Your task to perform on an android device: open app "ZOOM Cloud Meetings" Image 0: 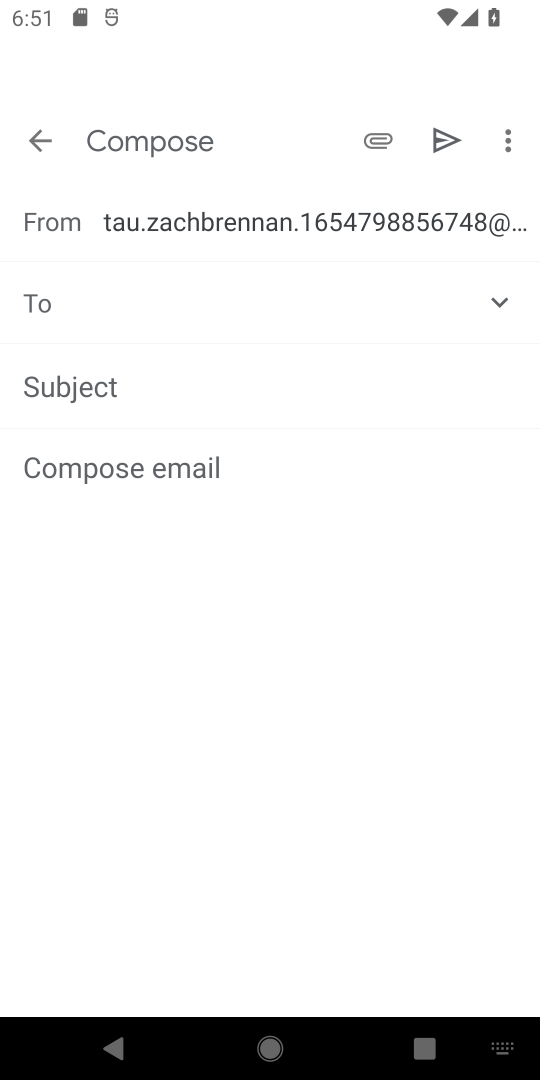
Step 0: click (45, 125)
Your task to perform on an android device: open app "ZOOM Cloud Meetings" Image 1: 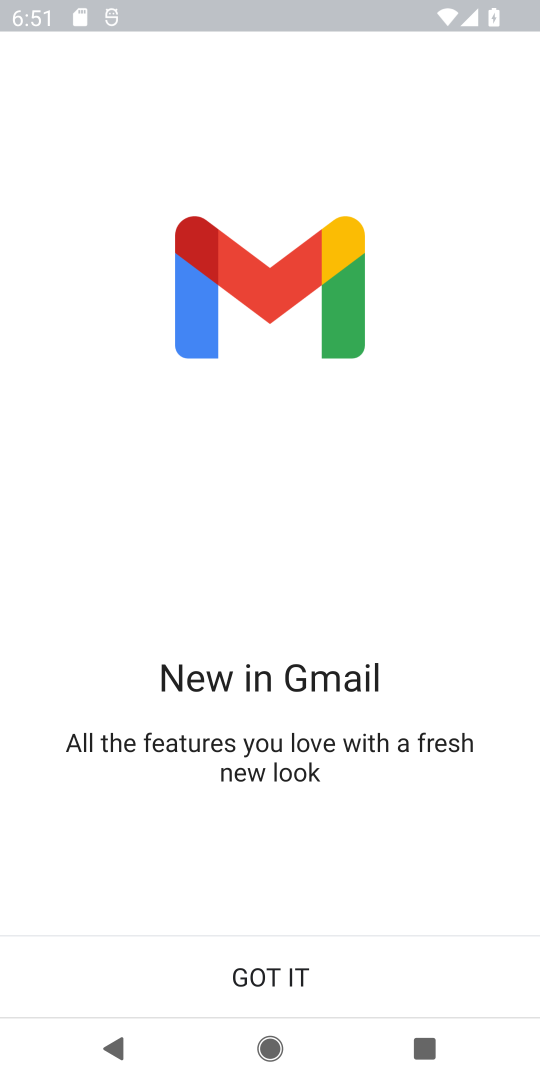
Step 1: press back button
Your task to perform on an android device: open app "ZOOM Cloud Meetings" Image 2: 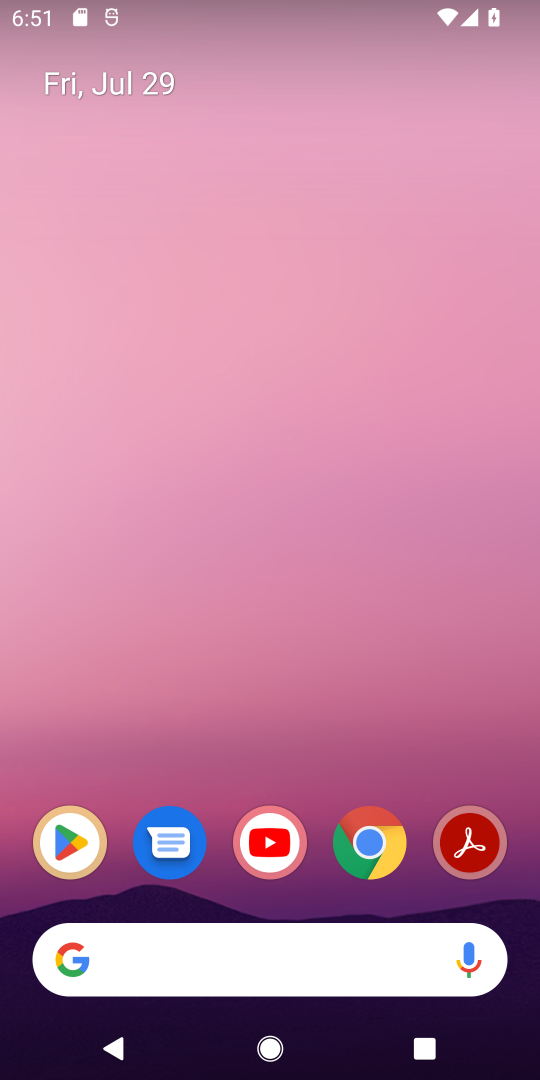
Step 2: drag from (350, 813) to (271, 263)
Your task to perform on an android device: open app "ZOOM Cloud Meetings" Image 3: 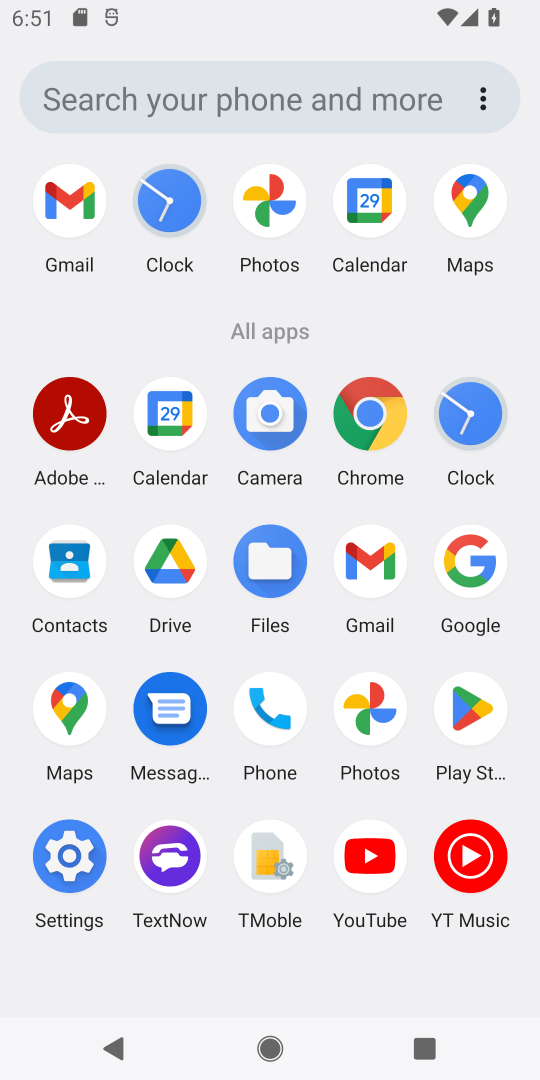
Step 3: drag from (300, 847) to (300, 342)
Your task to perform on an android device: open app "ZOOM Cloud Meetings" Image 4: 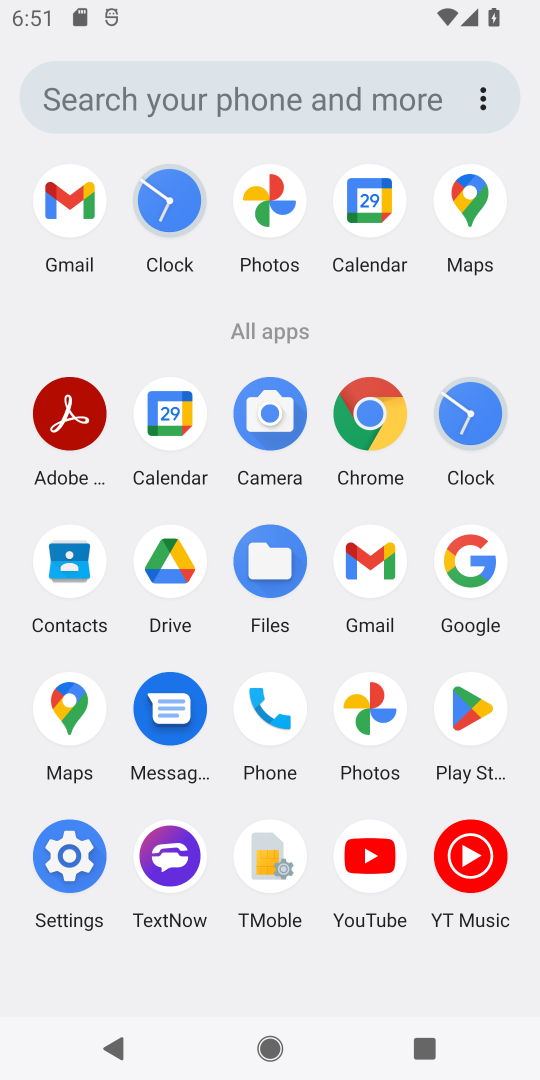
Step 4: click (481, 706)
Your task to perform on an android device: open app "ZOOM Cloud Meetings" Image 5: 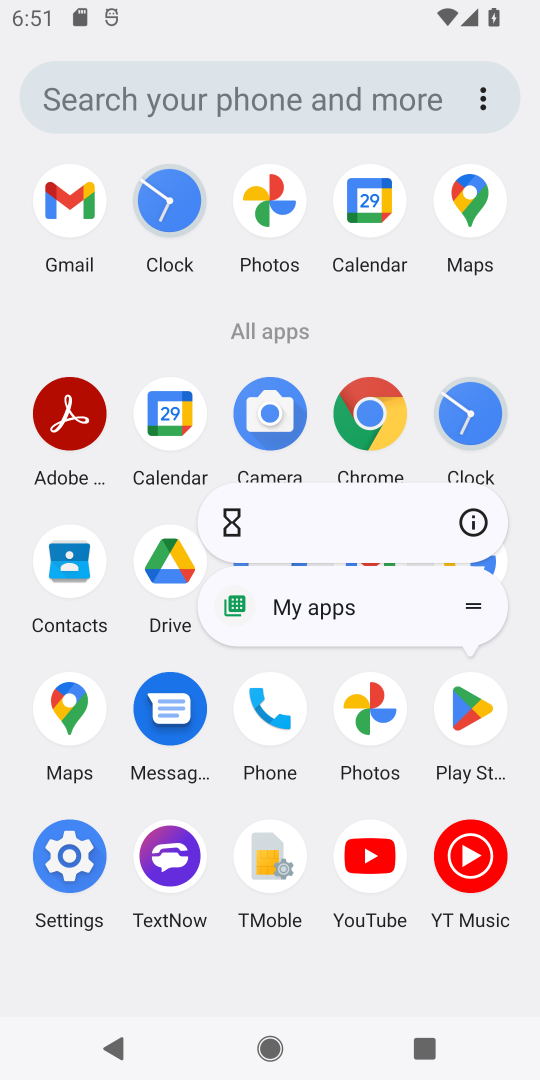
Step 5: click (480, 708)
Your task to perform on an android device: open app "ZOOM Cloud Meetings" Image 6: 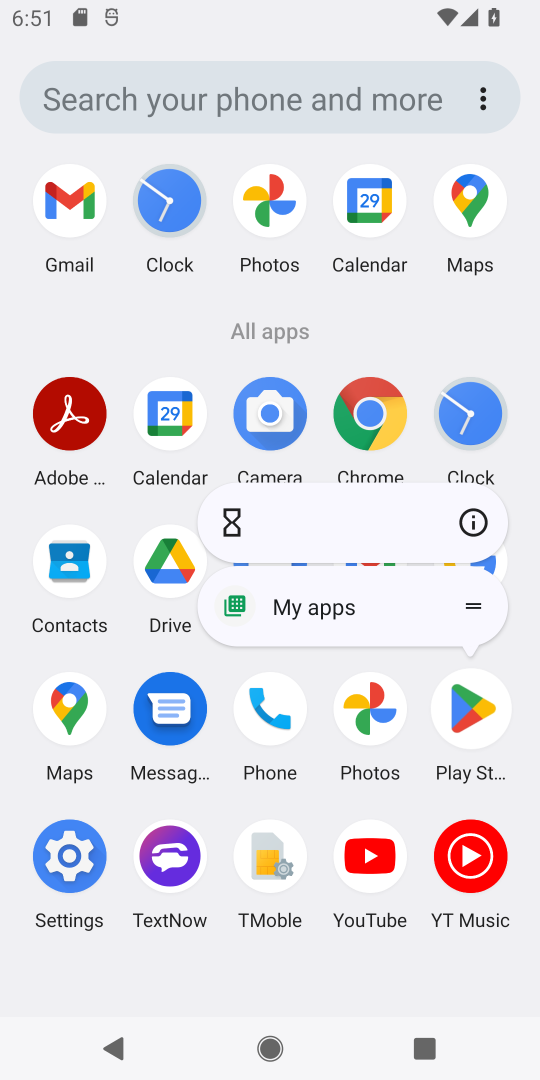
Step 6: click (481, 706)
Your task to perform on an android device: open app "ZOOM Cloud Meetings" Image 7: 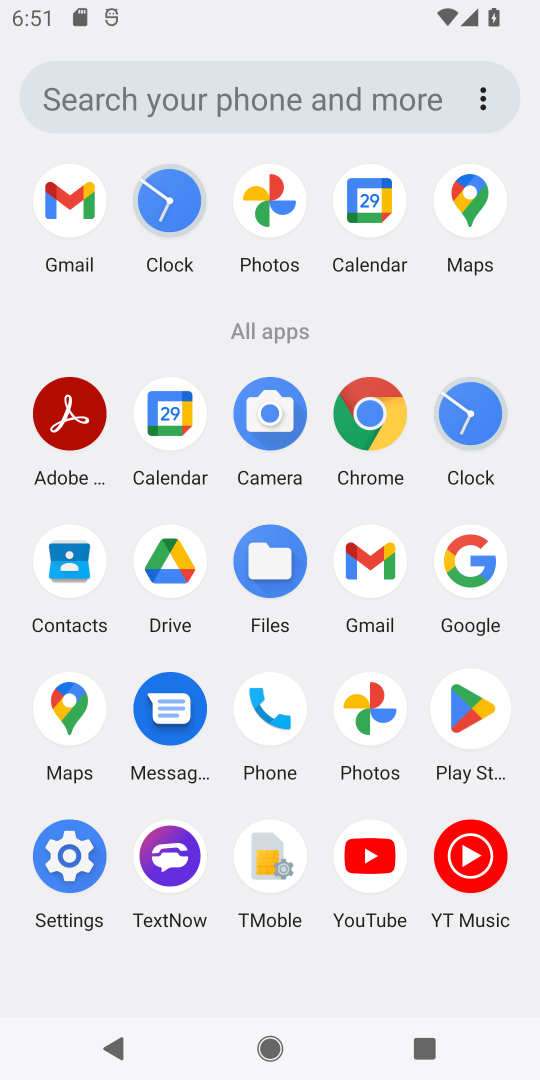
Step 7: click (485, 696)
Your task to perform on an android device: open app "ZOOM Cloud Meetings" Image 8: 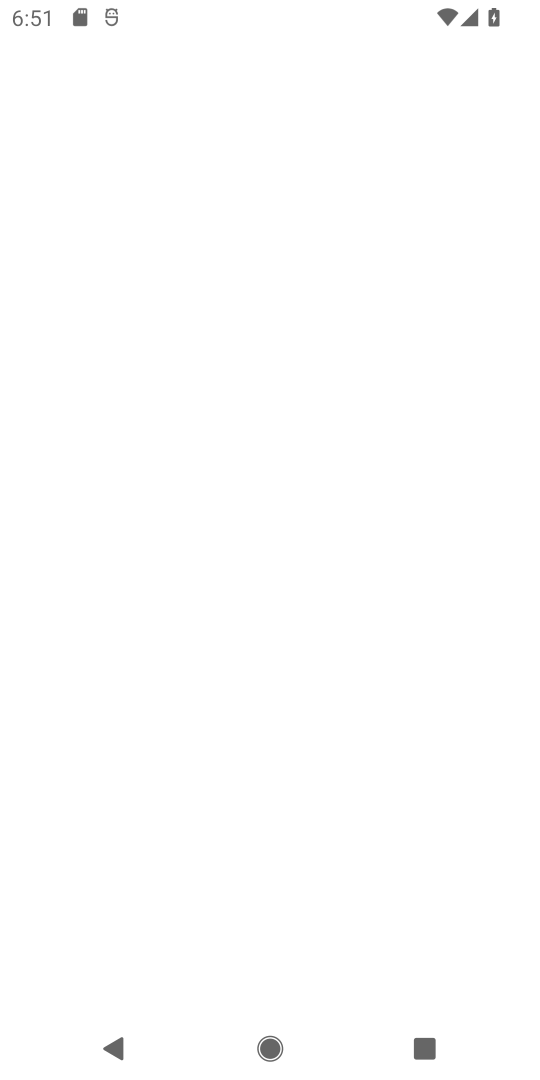
Step 8: click (486, 696)
Your task to perform on an android device: open app "ZOOM Cloud Meetings" Image 9: 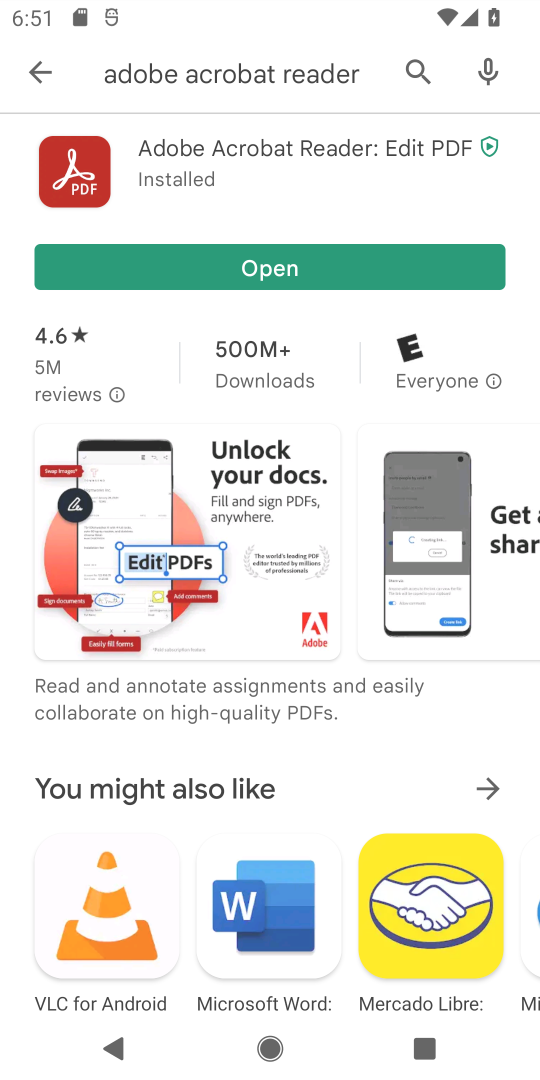
Step 9: click (487, 696)
Your task to perform on an android device: open app "ZOOM Cloud Meetings" Image 10: 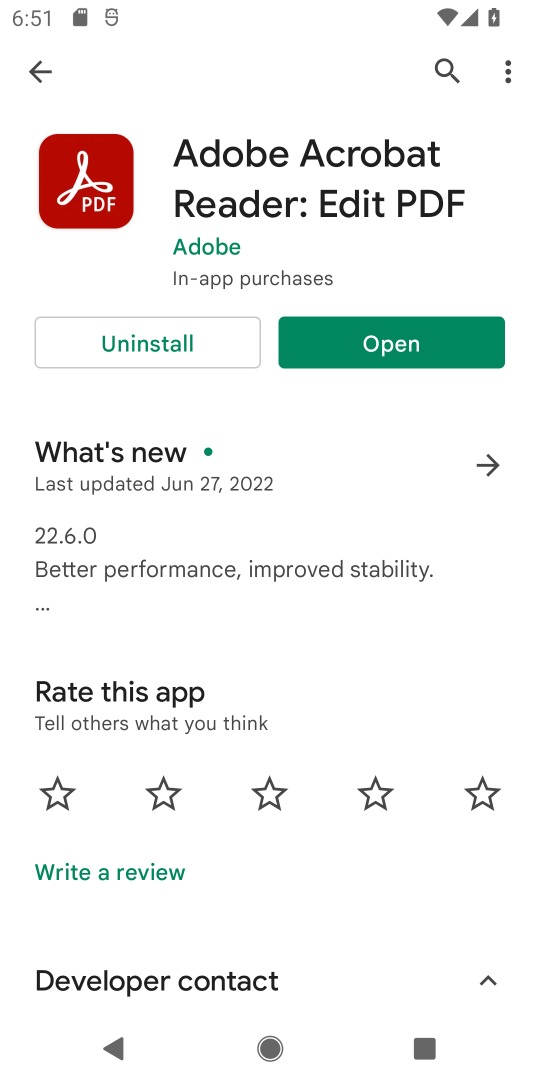
Step 10: click (35, 70)
Your task to perform on an android device: open app "ZOOM Cloud Meetings" Image 11: 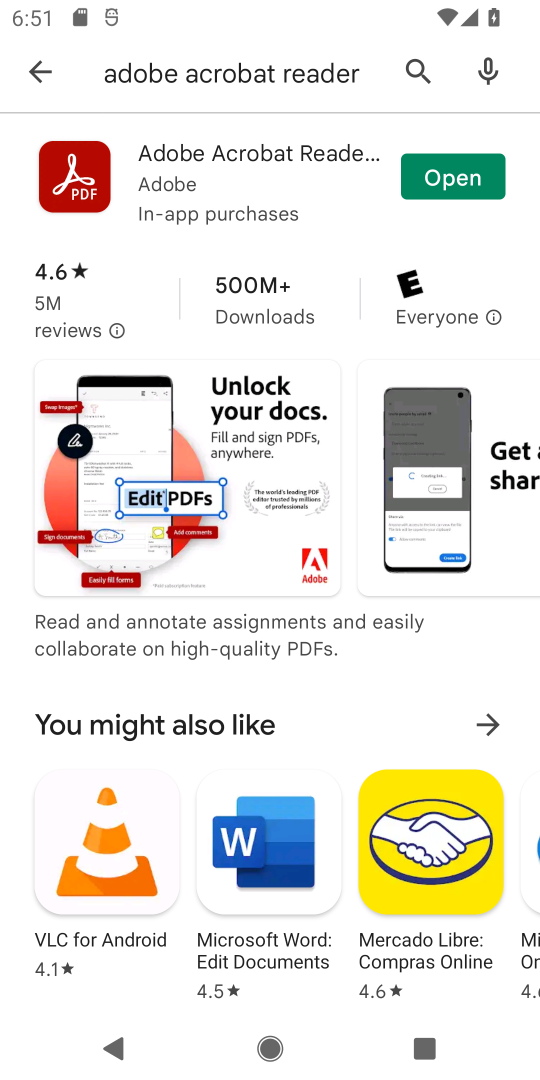
Step 11: click (30, 62)
Your task to perform on an android device: open app "ZOOM Cloud Meetings" Image 12: 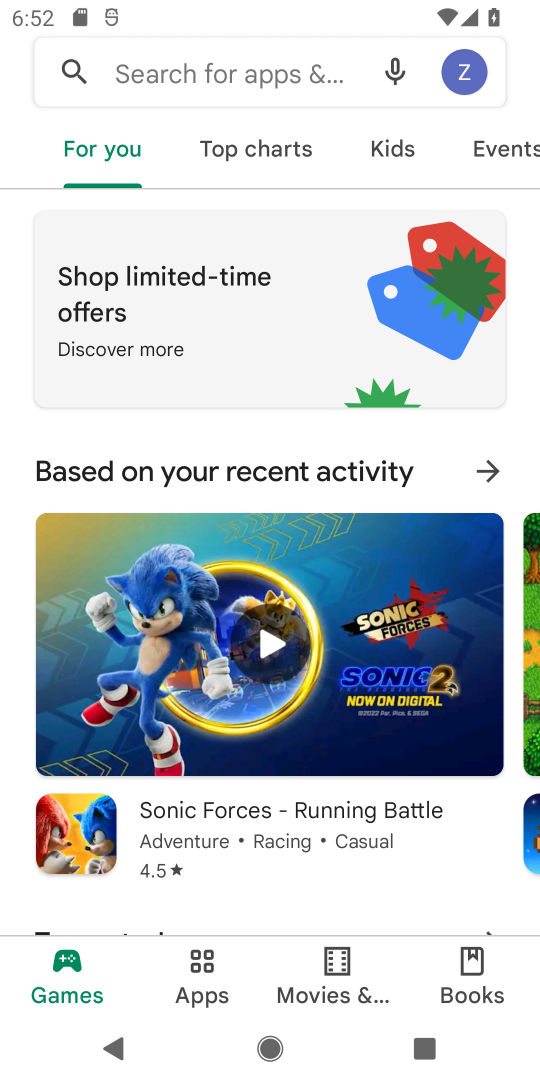
Step 12: click (164, 73)
Your task to perform on an android device: open app "ZOOM Cloud Meetings" Image 13: 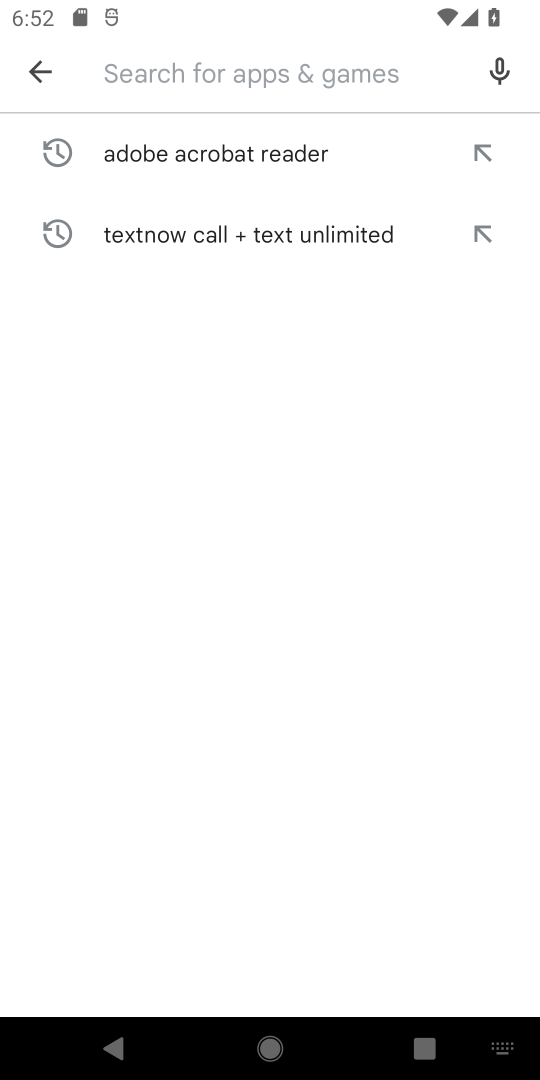
Step 13: click (127, 58)
Your task to perform on an android device: open app "ZOOM Cloud Meetings" Image 14: 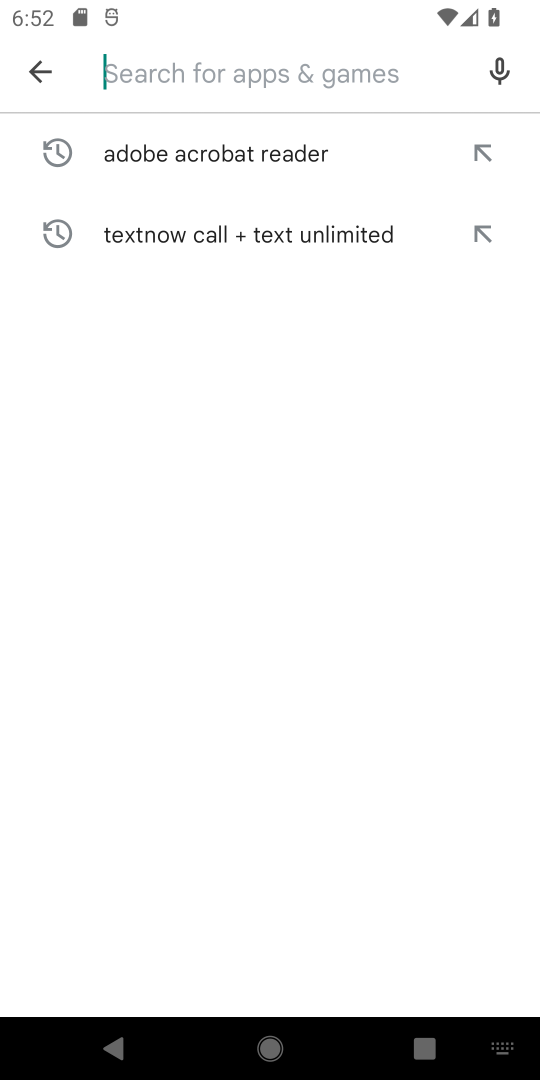
Step 14: type "Zoom cloud Meetings"
Your task to perform on an android device: open app "ZOOM Cloud Meetings" Image 15: 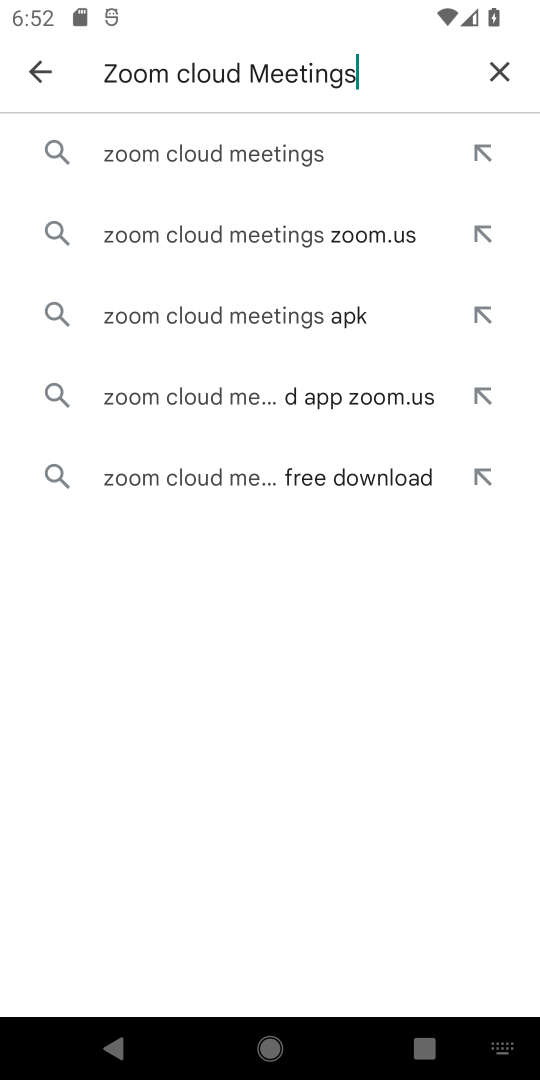
Step 15: click (282, 151)
Your task to perform on an android device: open app "ZOOM Cloud Meetings" Image 16: 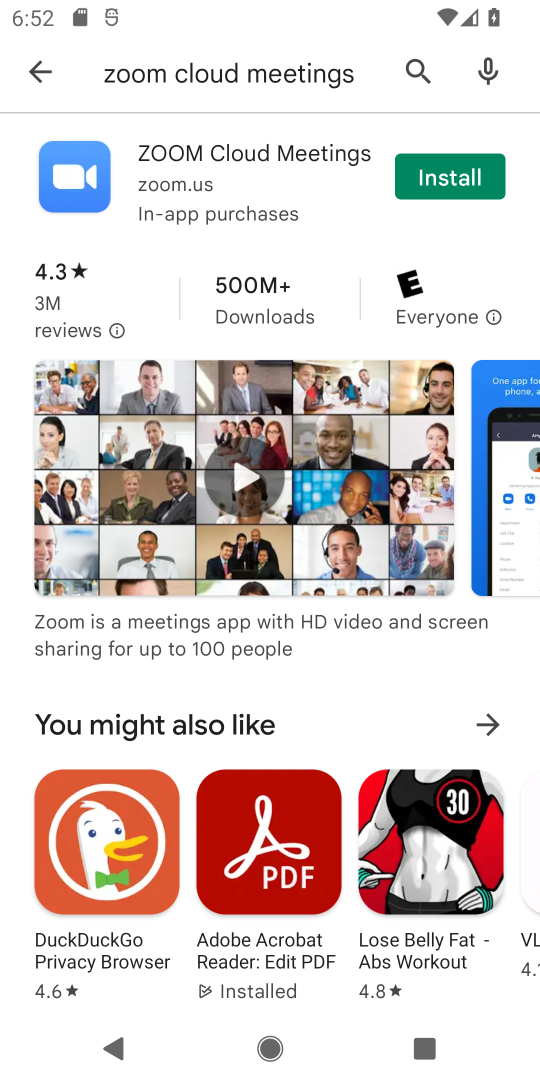
Step 16: click (463, 169)
Your task to perform on an android device: open app "ZOOM Cloud Meetings" Image 17: 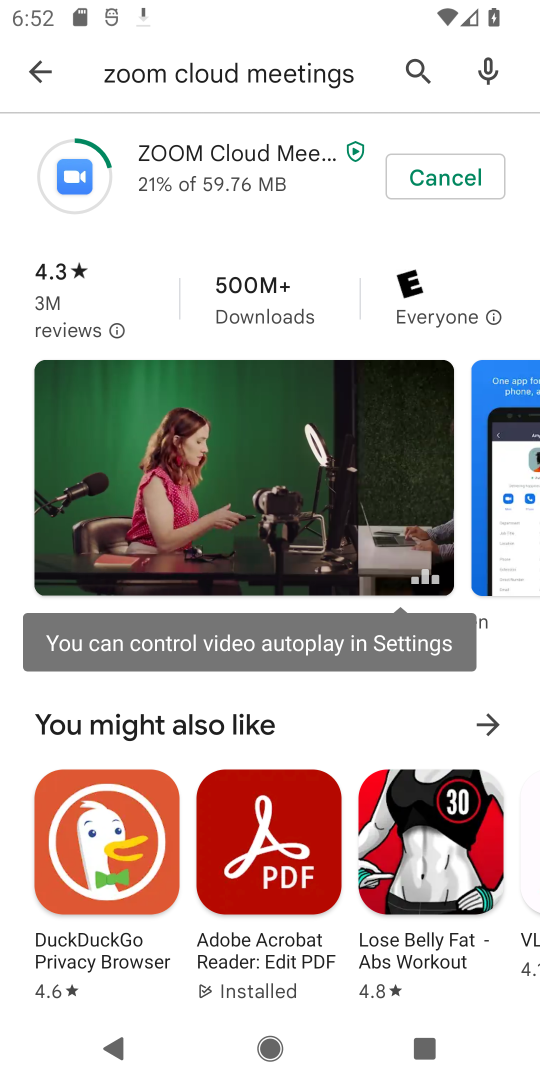
Step 17: click (199, 506)
Your task to perform on an android device: open app "ZOOM Cloud Meetings" Image 18: 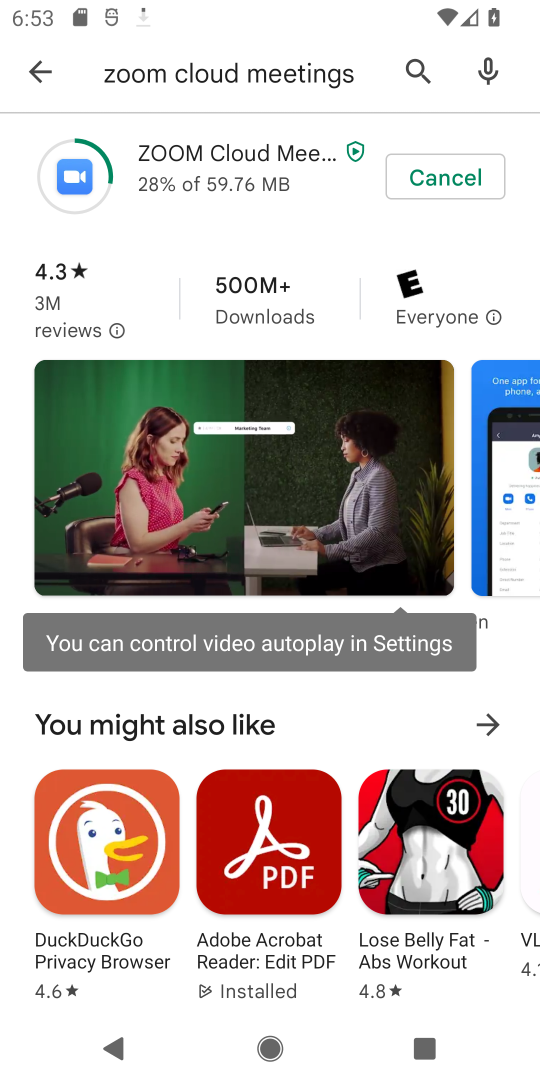
Step 18: click (258, 487)
Your task to perform on an android device: open app "ZOOM Cloud Meetings" Image 19: 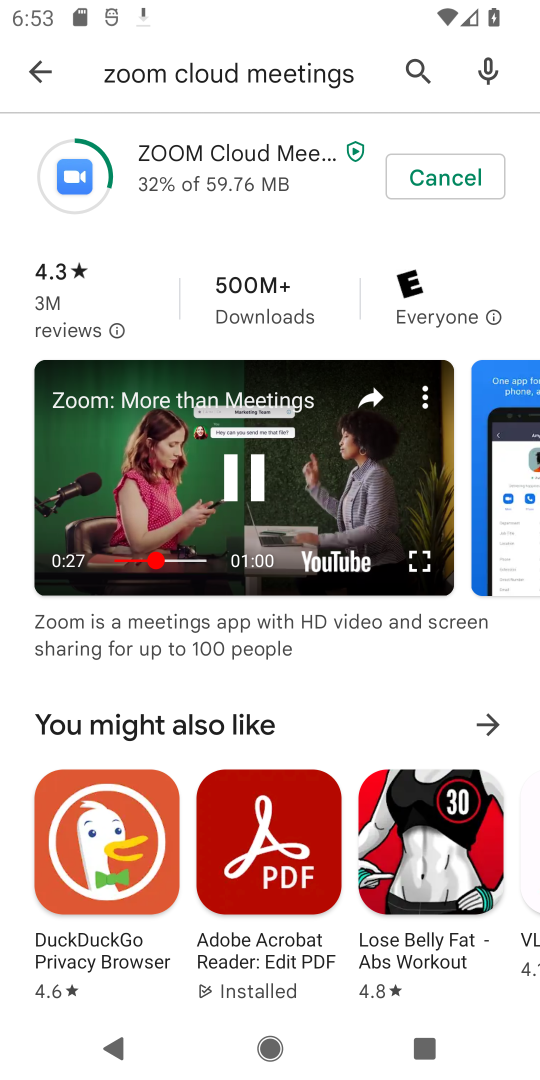
Step 19: click (240, 480)
Your task to perform on an android device: open app "ZOOM Cloud Meetings" Image 20: 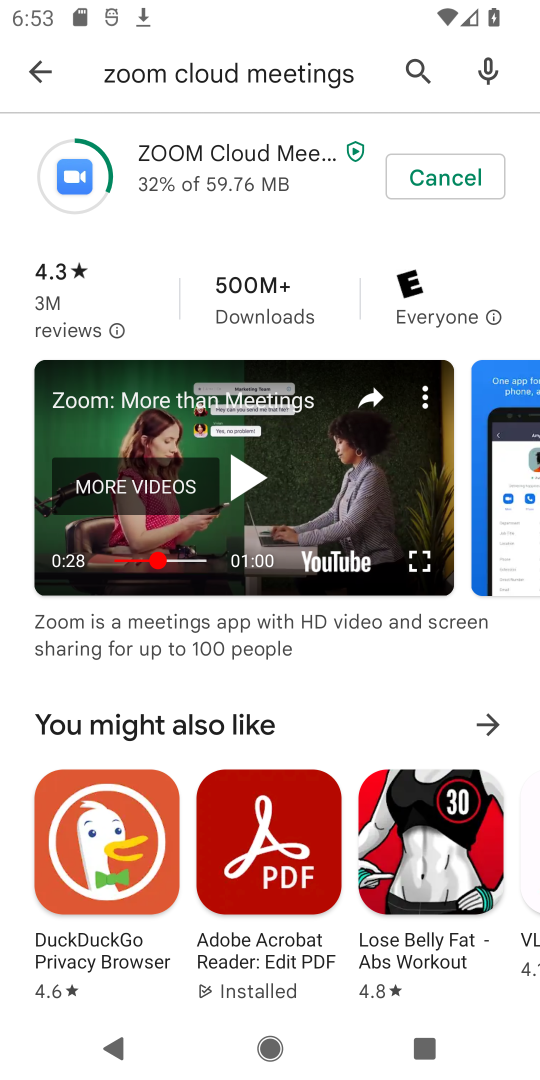
Step 20: click (240, 480)
Your task to perform on an android device: open app "ZOOM Cloud Meetings" Image 21: 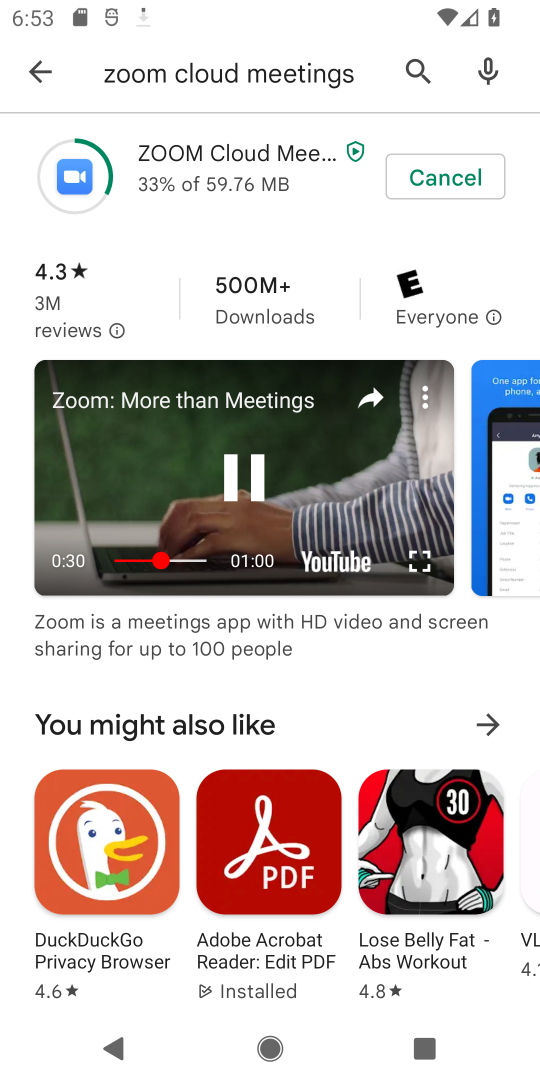
Step 21: click (239, 476)
Your task to perform on an android device: open app "ZOOM Cloud Meetings" Image 22: 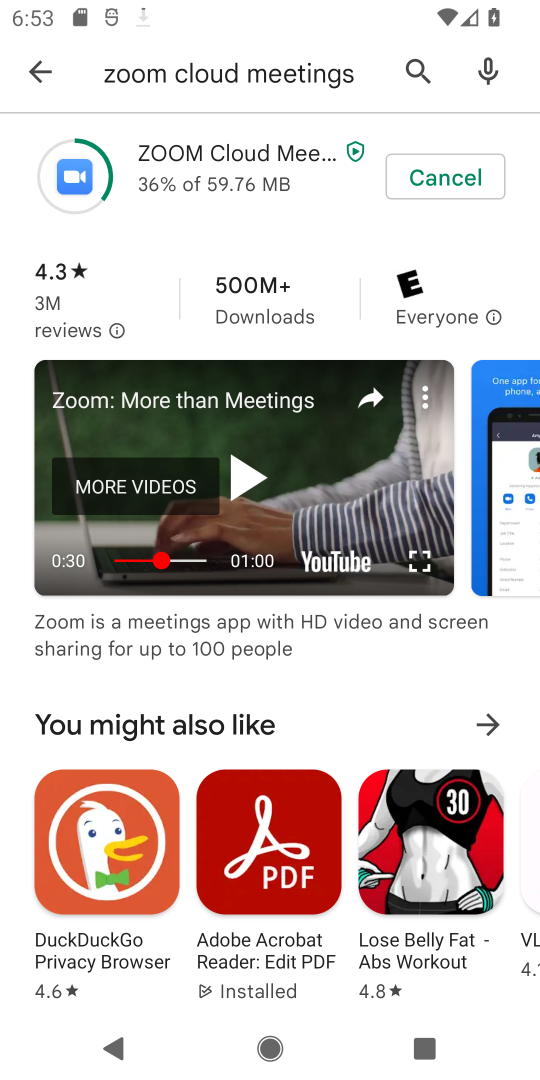
Step 22: drag from (477, 266) to (526, 428)
Your task to perform on an android device: open app "ZOOM Cloud Meetings" Image 23: 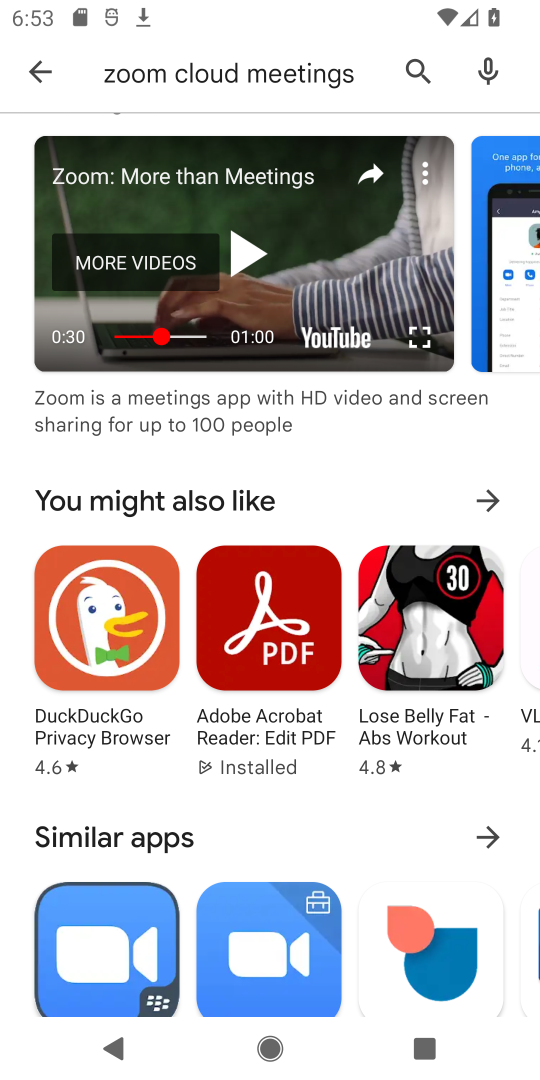
Step 23: drag from (343, 212) to (400, 630)
Your task to perform on an android device: open app "ZOOM Cloud Meetings" Image 24: 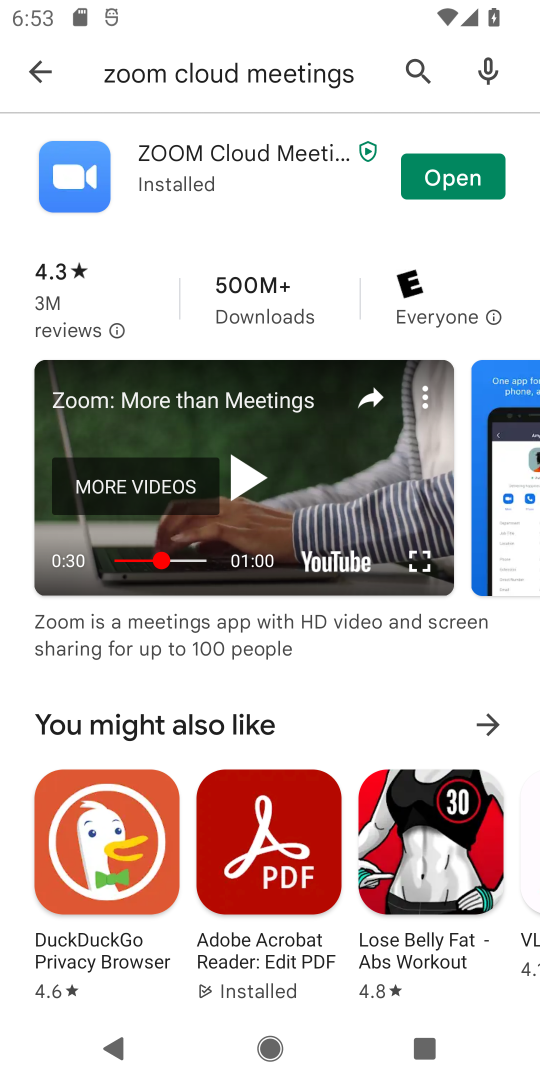
Step 24: click (474, 193)
Your task to perform on an android device: open app "ZOOM Cloud Meetings" Image 25: 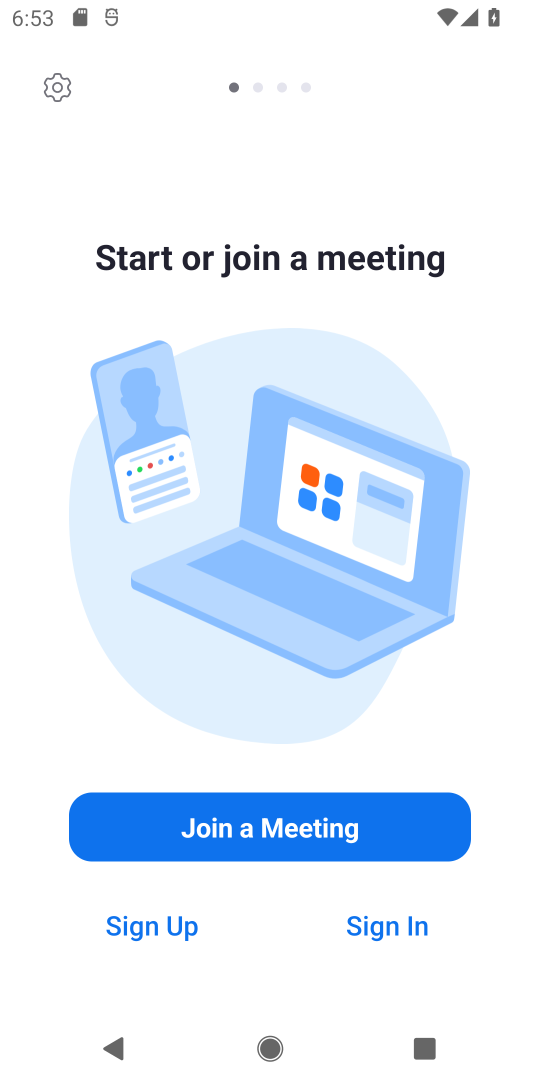
Step 25: task complete